Your task to perform on an android device: Go to Maps Image 0: 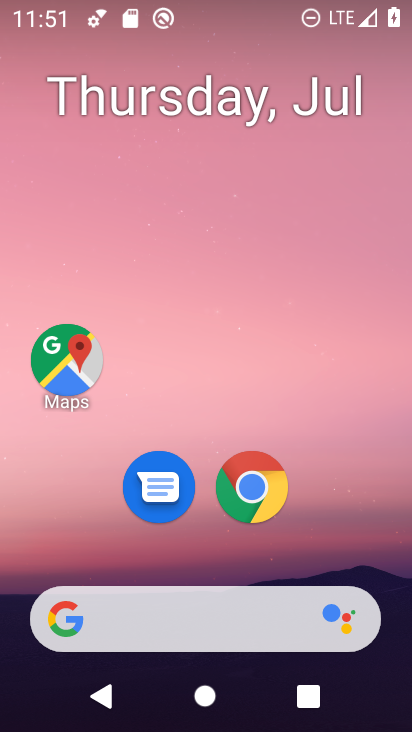
Step 0: drag from (188, 579) to (192, 181)
Your task to perform on an android device: Go to Maps Image 1: 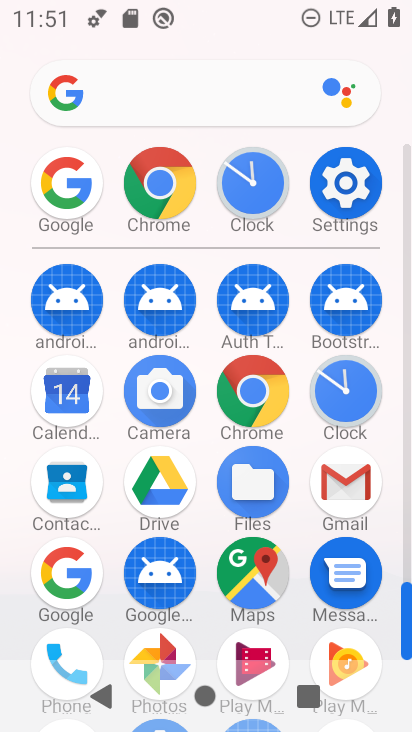
Step 1: click (259, 566)
Your task to perform on an android device: Go to Maps Image 2: 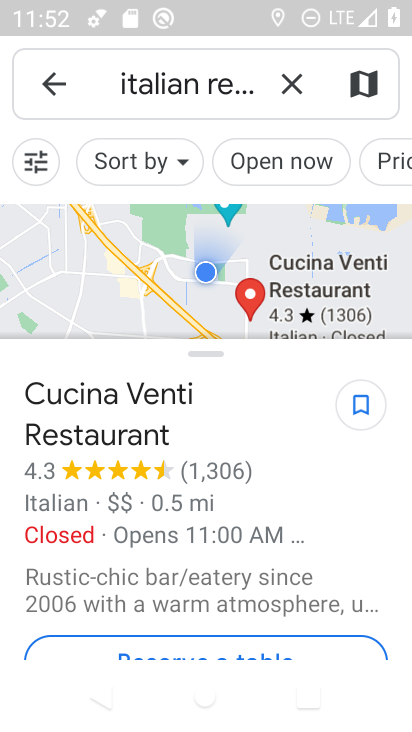
Step 2: task complete